Your task to perform on an android device: turn on airplane mode Image 0: 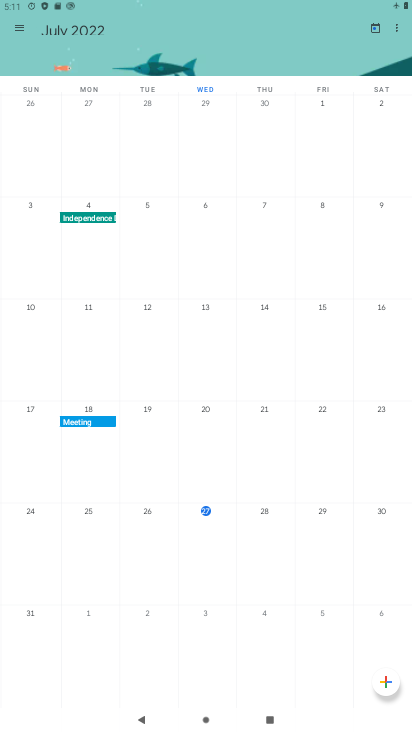
Step 0: press home button
Your task to perform on an android device: turn on airplane mode Image 1: 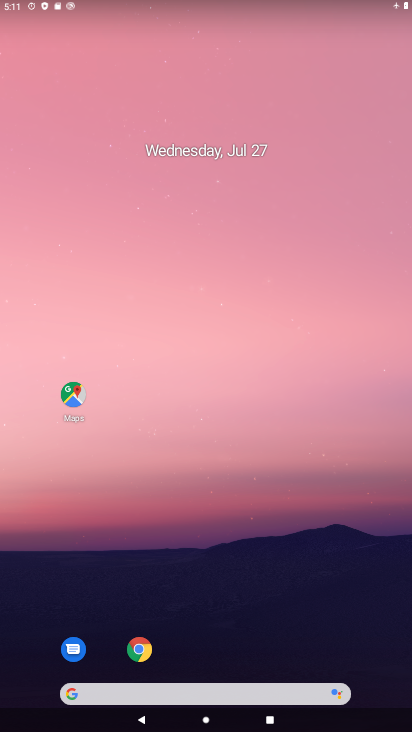
Step 1: drag from (196, 693) to (206, 50)
Your task to perform on an android device: turn on airplane mode Image 2: 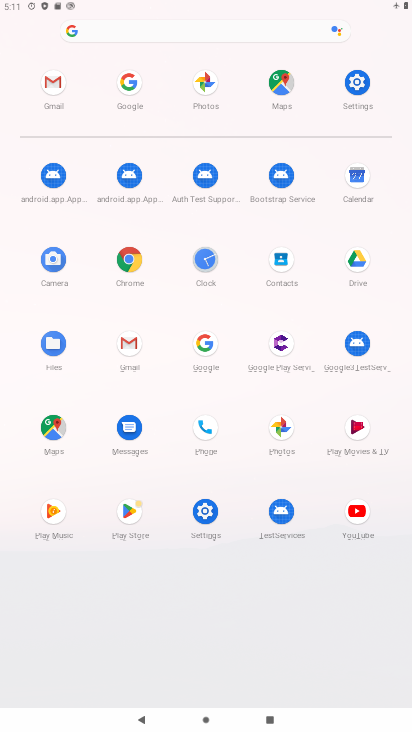
Step 2: click (206, 511)
Your task to perform on an android device: turn on airplane mode Image 3: 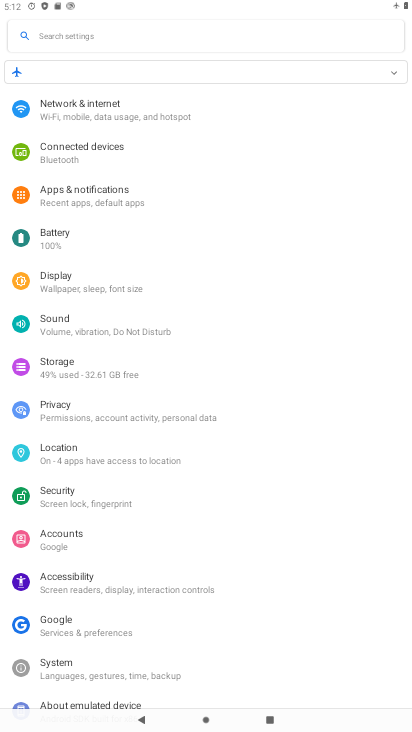
Step 3: click (100, 112)
Your task to perform on an android device: turn on airplane mode Image 4: 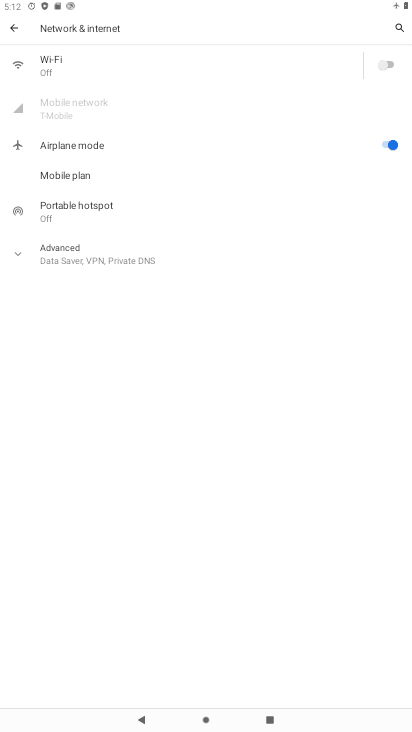
Step 4: task complete